Your task to perform on an android device: turn on priority inbox in the gmail app Image 0: 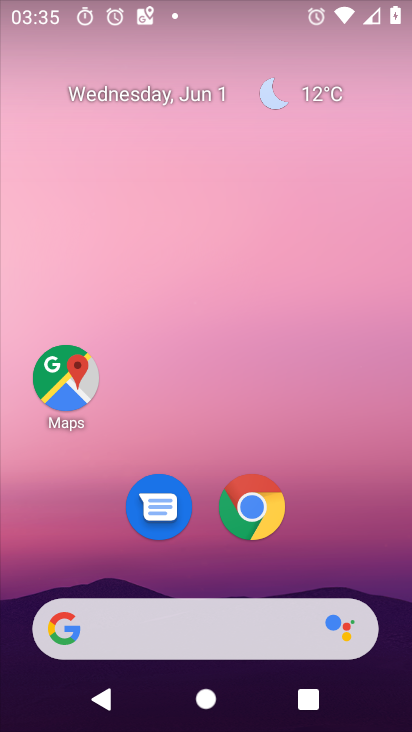
Step 0: drag from (363, 576) to (363, 0)
Your task to perform on an android device: turn on priority inbox in the gmail app Image 1: 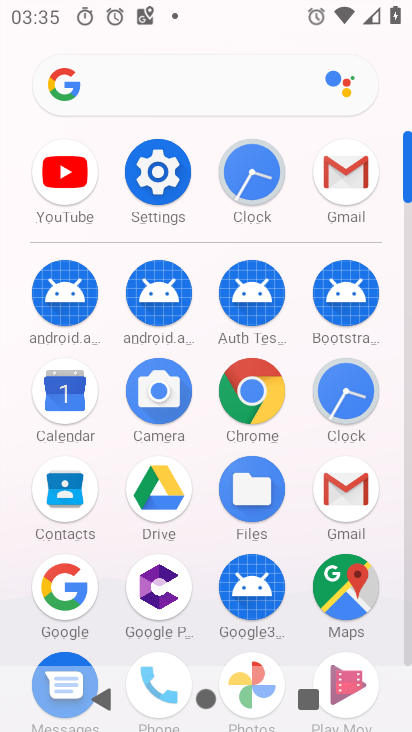
Step 1: click (337, 185)
Your task to perform on an android device: turn on priority inbox in the gmail app Image 2: 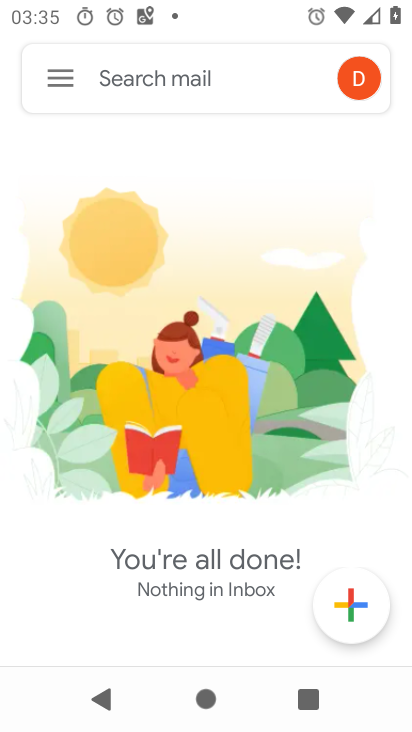
Step 2: click (48, 76)
Your task to perform on an android device: turn on priority inbox in the gmail app Image 3: 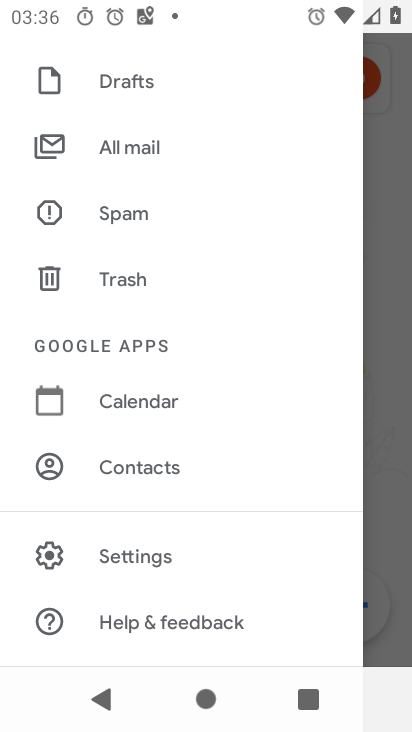
Step 3: click (155, 564)
Your task to perform on an android device: turn on priority inbox in the gmail app Image 4: 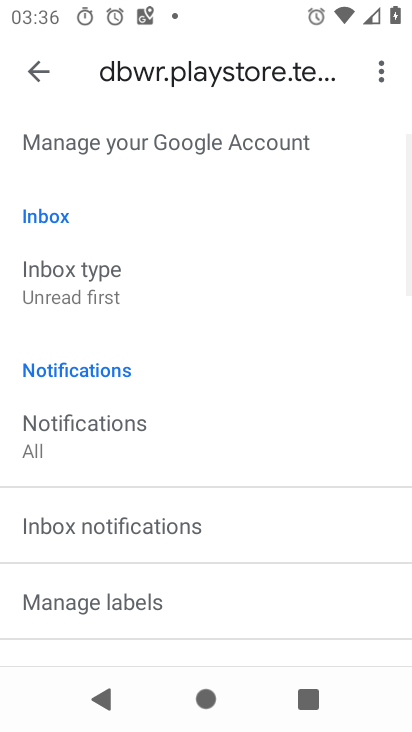
Step 4: click (80, 282)
Your task to perform on an android device: turn on priority inbox in the gmail app Image 5: 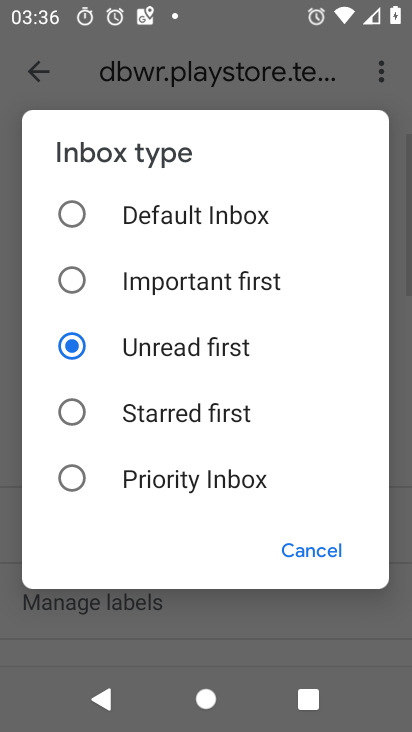
Step 5: click (62, 486)
Your task to perform on an android device: turn on priority inbox in the gmail app Image 6: 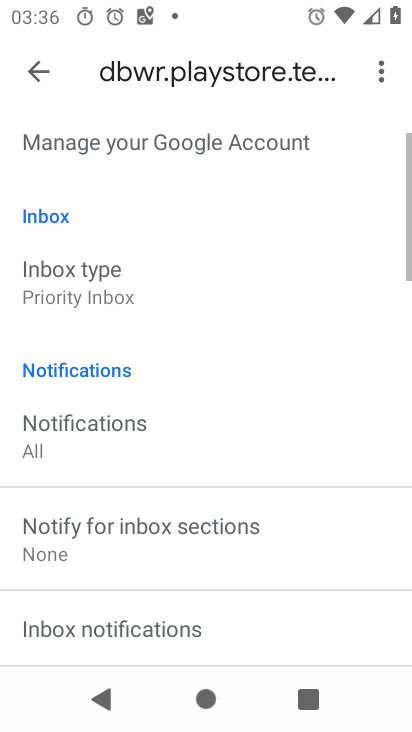
Step 6: task complete